Your task to perform on an android device: toggle notification dots Image 0: 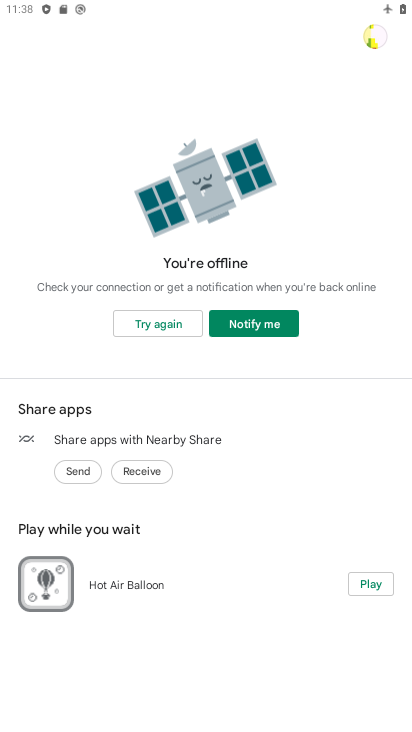
Step 0: press home button
Your task to perform on an android device: toggle notification dots Image 1: 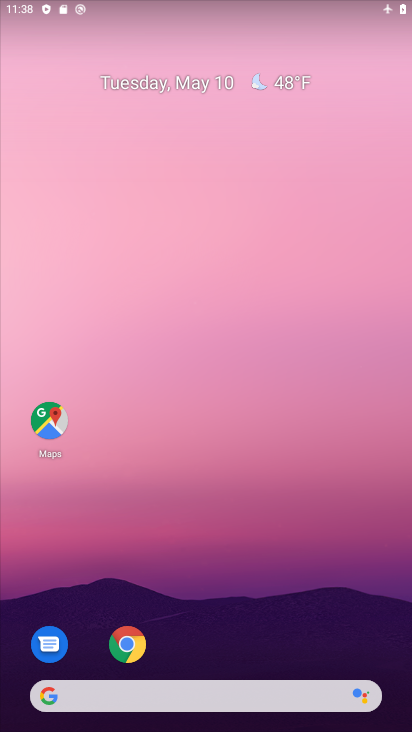
Step 1: drag from (195, 660) to (268, 206)
Your task to perform on an android device: toggle notification dots Image 2: 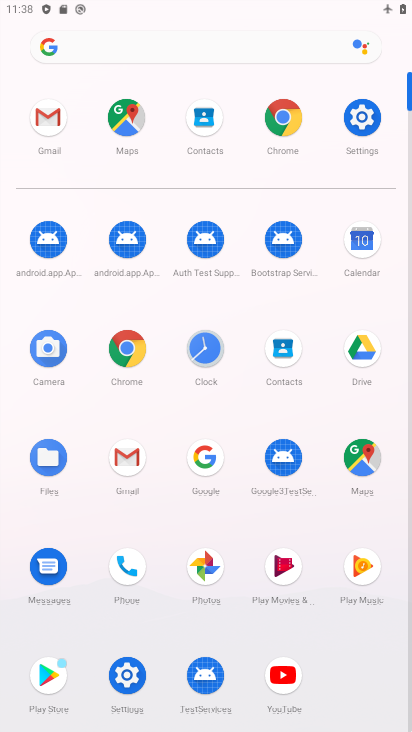
Step 2: click (131, 677)
Your task to perform on an android device: toggle notification dots Image 3: 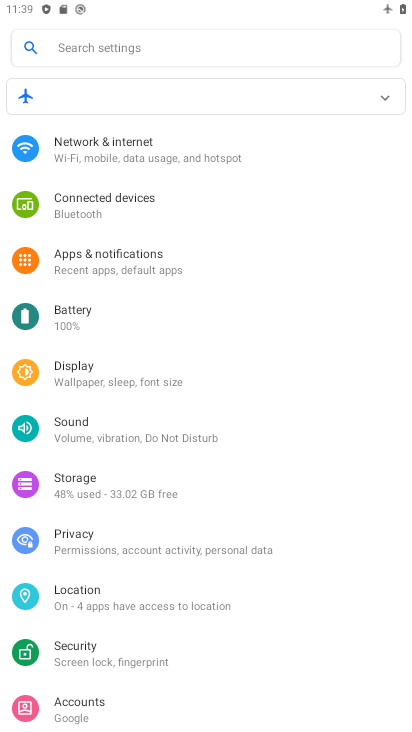
Step 3: click (121, 265)
Your task to perform on an android device: toggle notification dots Image 4: 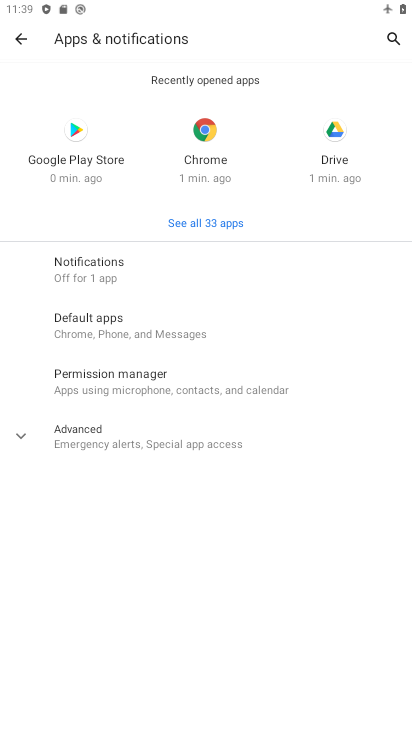
Step 4: click (114, 437)
Your task to perform on an android device: toggle notification dots Image 5: 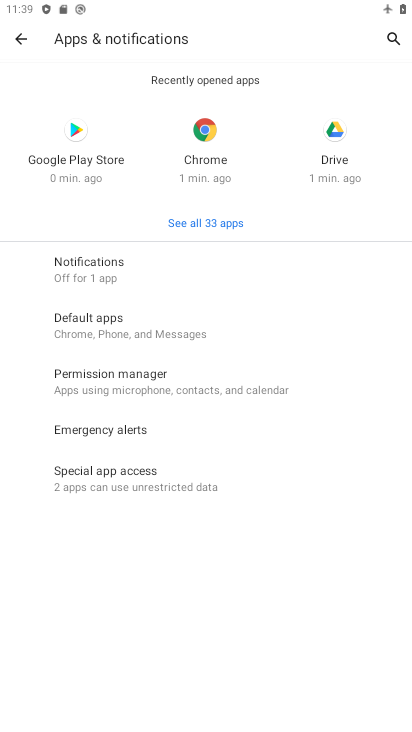
Step 5: click (117, 271)
Your task to perform on an android device: toggle notification dots Image 6: 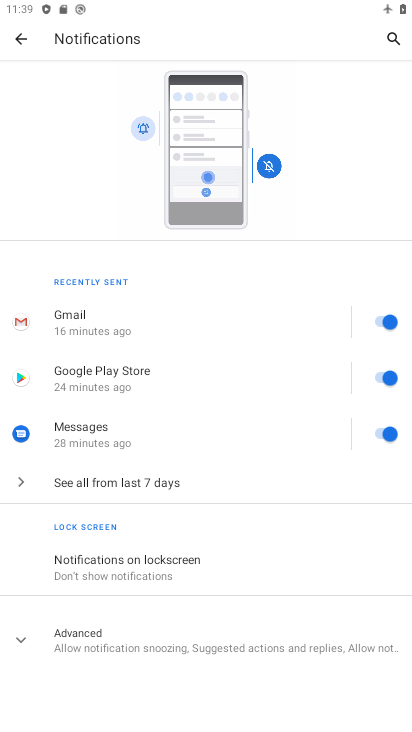
Step 6: click (117, 638)
Your task to perform on an android device: toggle notification dots Image 7: 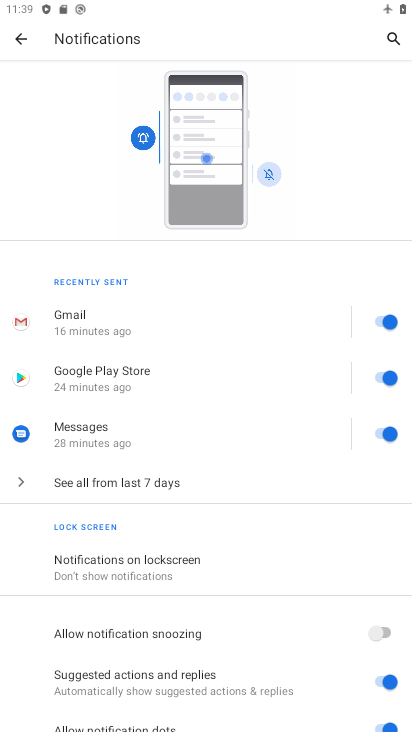
Step 7: drag from (164, 596) to (173, 410)
Your task to perform on an android device: toggle notification dots Image 8: 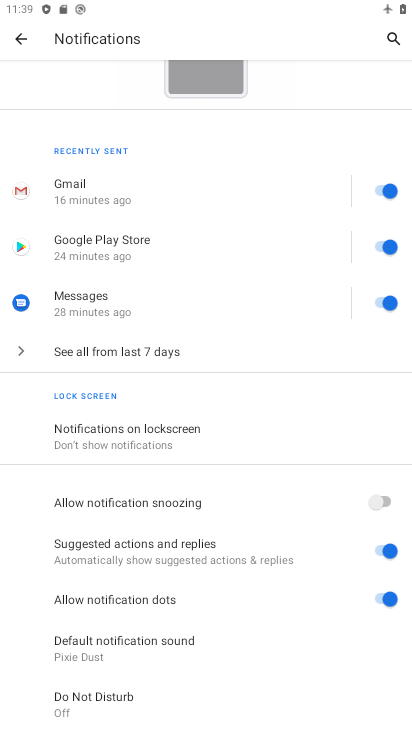
Step 8: click (374, 590)
Your task to perform on an android device: toggle notification dots Image 9: 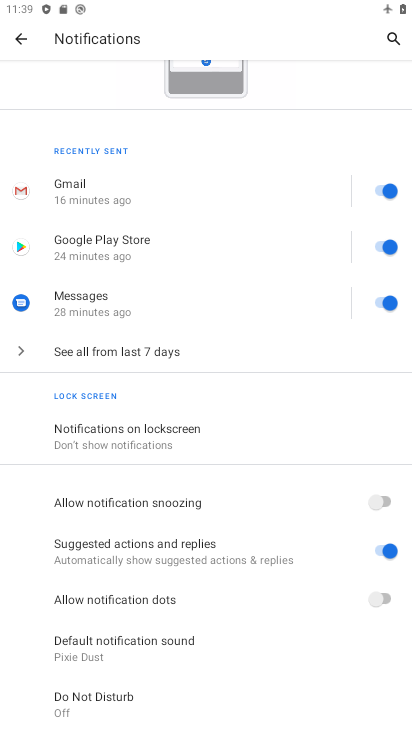
Step 9: task complete